Your task to perform on an android device: find photos in the google photos app Image 0: 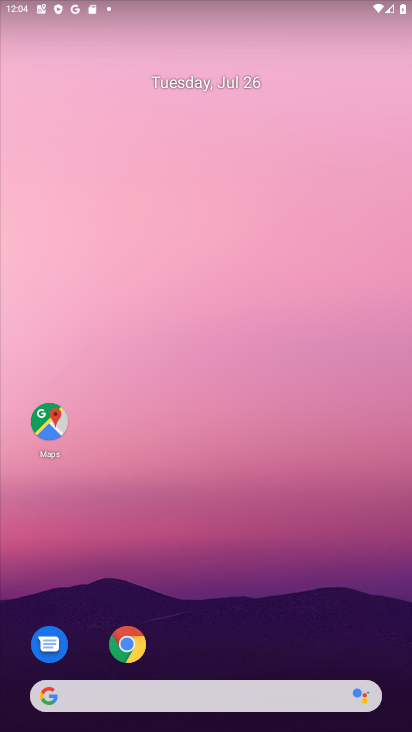
Step 0: drag from (233, 647) to (241, 92)
Your task to perform on an android device: find photos in the google photos app Image 1: 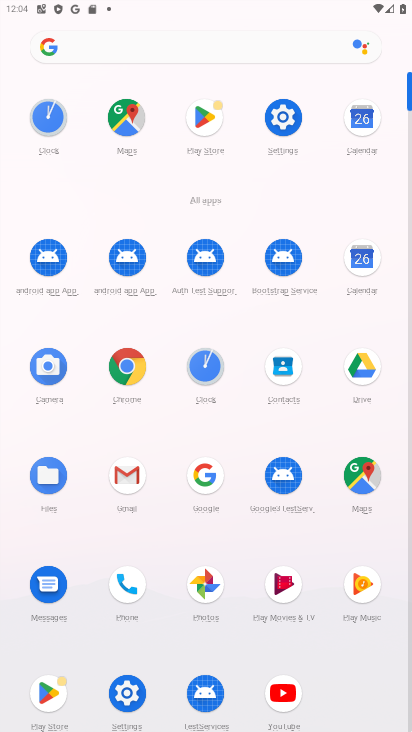
Step 1: click (211, 590)
Your task to perform on an android device: find photos in the google photos app Image 2: 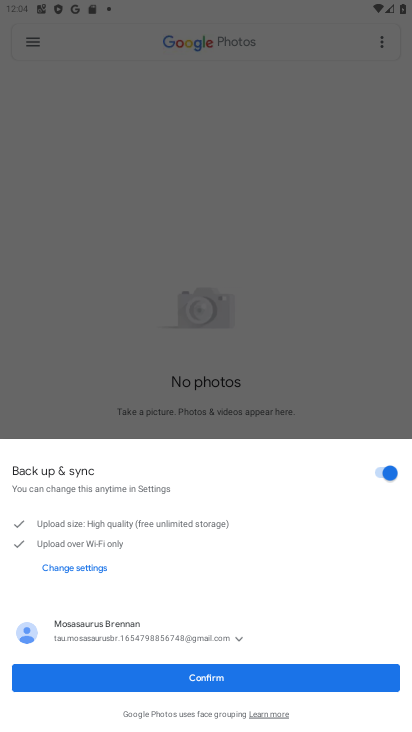
Step 2: click (197, 678)
Your task to perform on an android device: find photos in the google photos app Image 3: 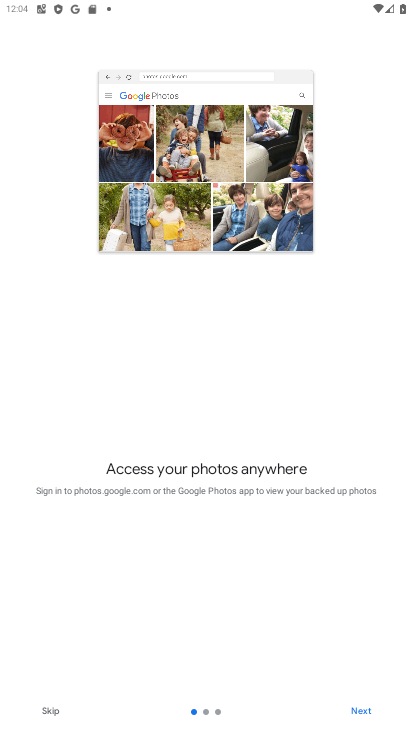
Step 3: click (48, 712)
Your task to perform on an android device: find photos in the google photos app Image 4: 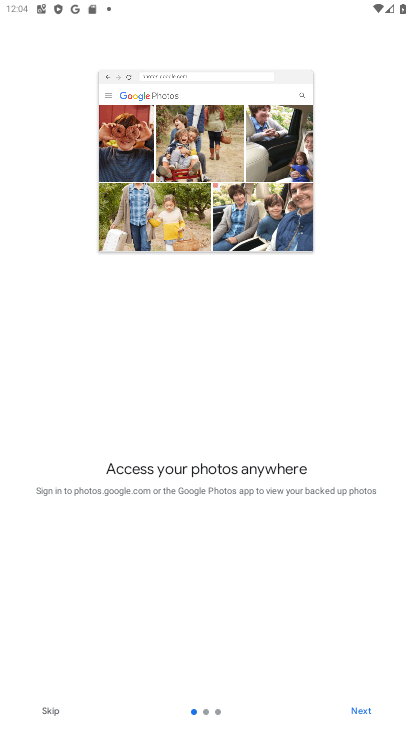
Step 4: click (48, 712)
Your task to perform on an android device: find photos in the google photos app Image 5: 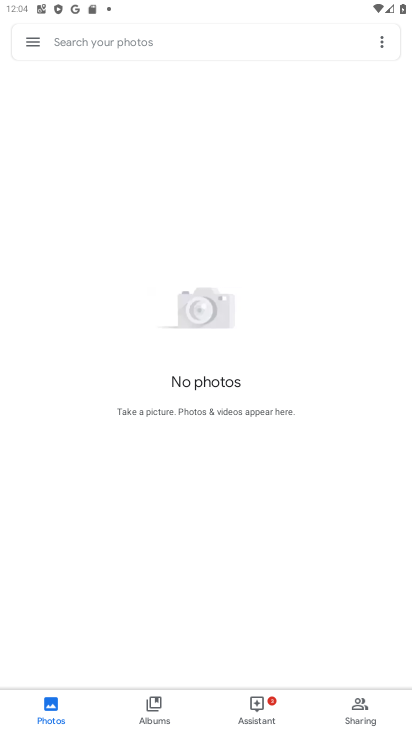
Step 5: click (48, 712)
Your task to perform on an android device: find photos in the google photos app Image 6: 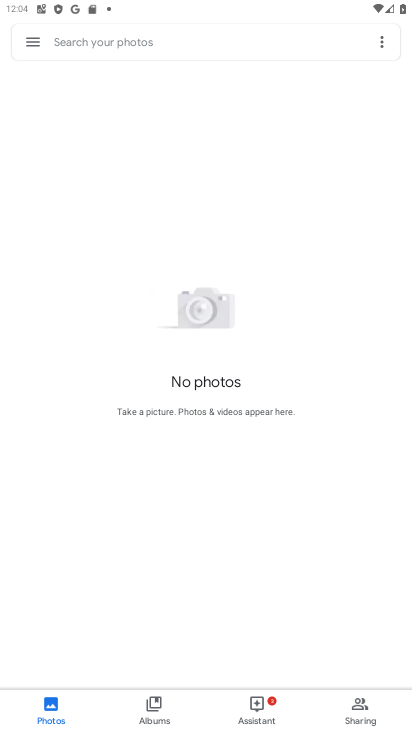
Step 6: task complete